Your task to perform on an android device: Open Yahoo.com Image 0: 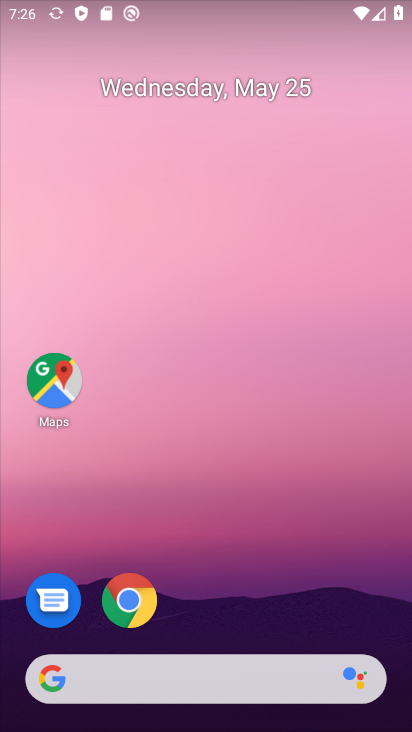
Step 0: drag from (365, 628) to (365, 221)
Your task to perform on an android device: Open Yahoo.com Image 1: 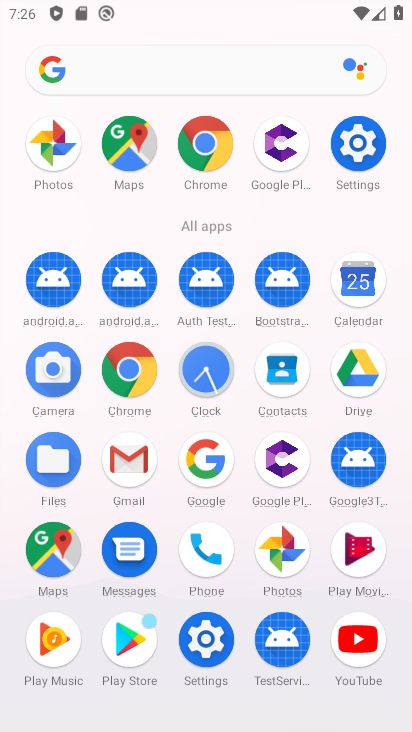
Step 1: click (139, 379)
Your task to perform on an android device: Open Yahoo.com Image 2: 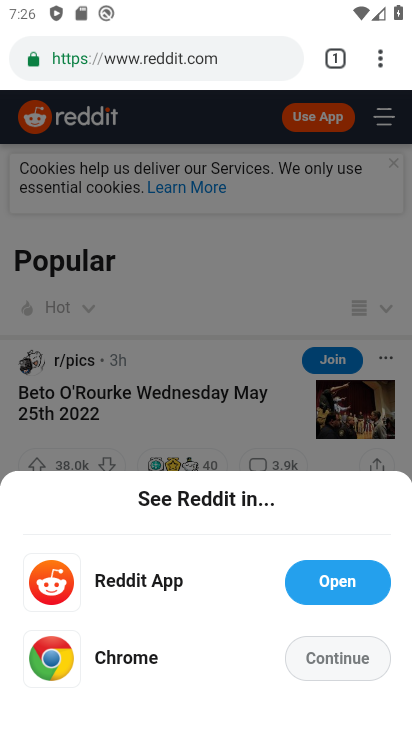
Step 2: click (188, 72)
Your task to perform on an android device: Open Yahoo.com Image 3: 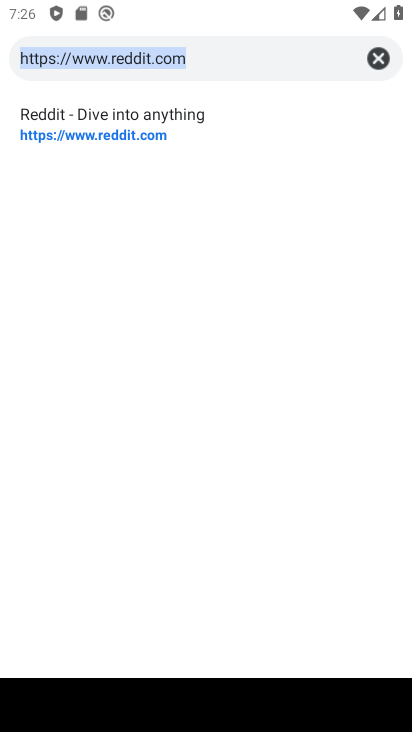
Step 3: click (377, 67)
Your task to perform on an android device: Open Yahoo.com Image 4: 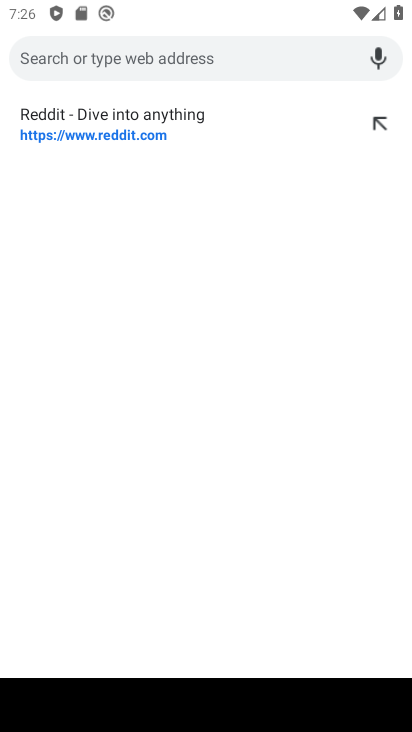
Step 4: type "yahoo.com"
Your task to perform on an android device: Open Yahoo.com Image 5: 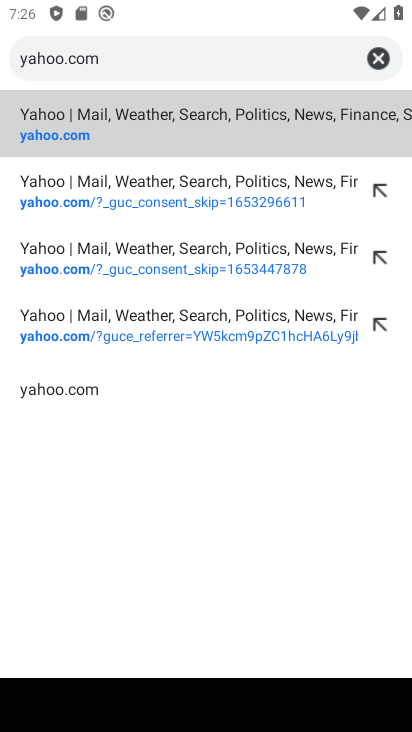
Step 5: click (197, 131)
Your task to perform on an android device: Open Yahoo.com Image 6: 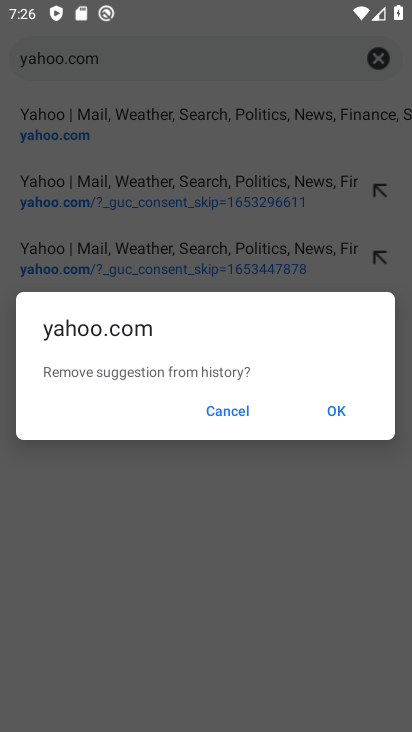
Step 6: click (337, 403)
Your task to perform on an android device: Open Yahoo.com Image 7: 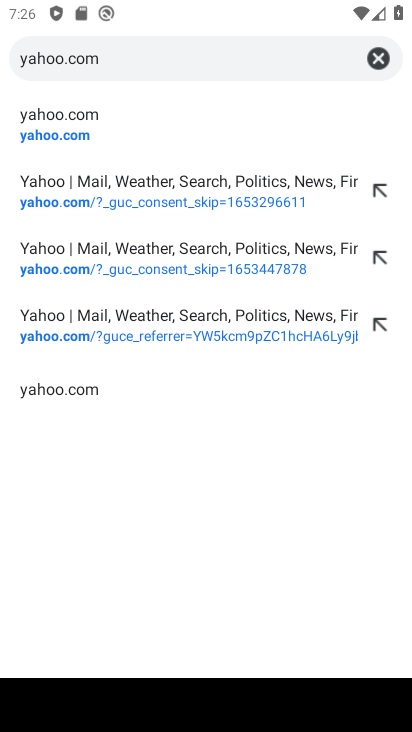
Step 7: click (56, 106)
Your task to perform on an android device: Open Yahoo.com Image 8: 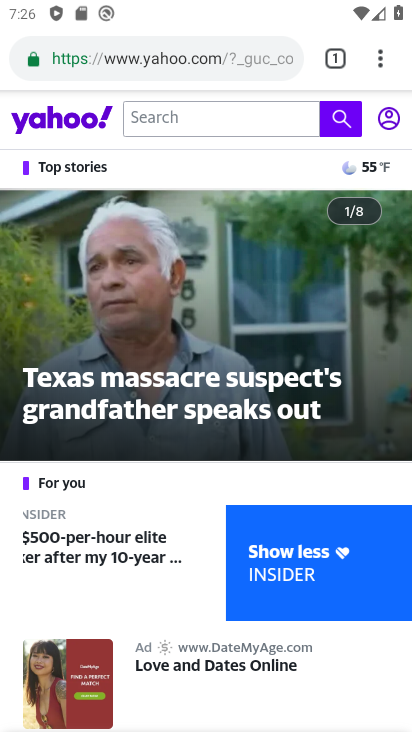
Step 8: task complete